Your task to perform on an android device: add a label to a message in the gmail app Image 0: 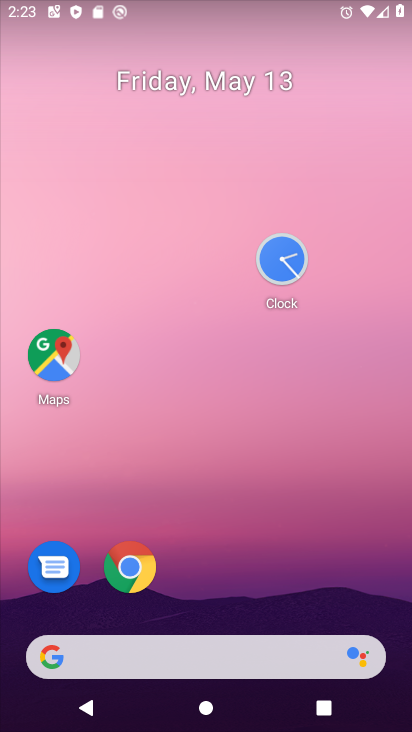
Step 0: drag from (207, 604) to (207, 386)
Your task to perform on an android device: add a label to a message in the gmail app Image 1: 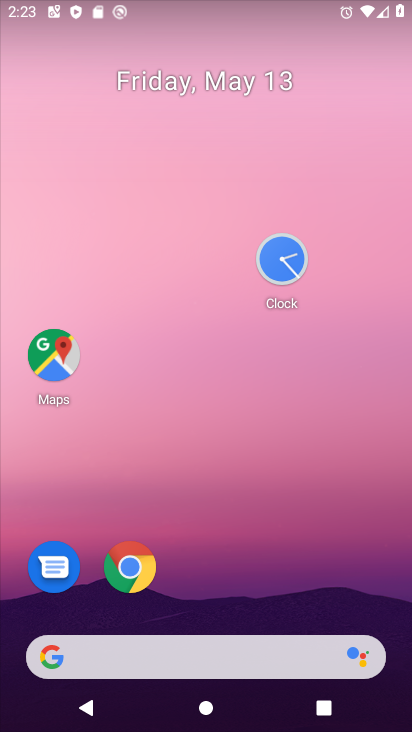
Step 1: drag from (291, 621) to (284, 274)
Your task to perform on an android device: add a label to a message in the gmail app Image 2: 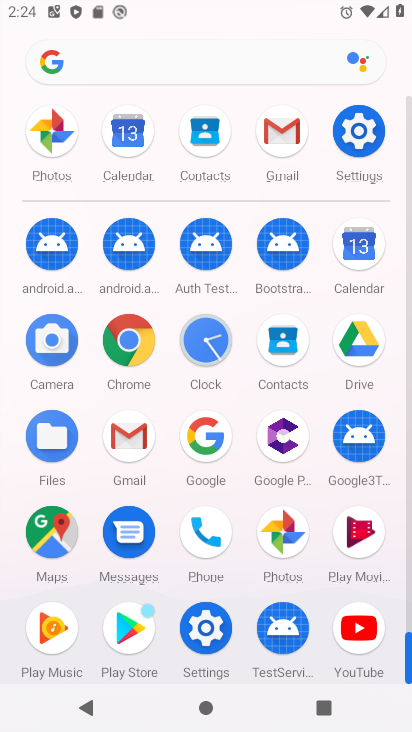
Step 2: click (129, 436)
Your task to perform on an android device: add a label to a message in the gmail app Image 3: 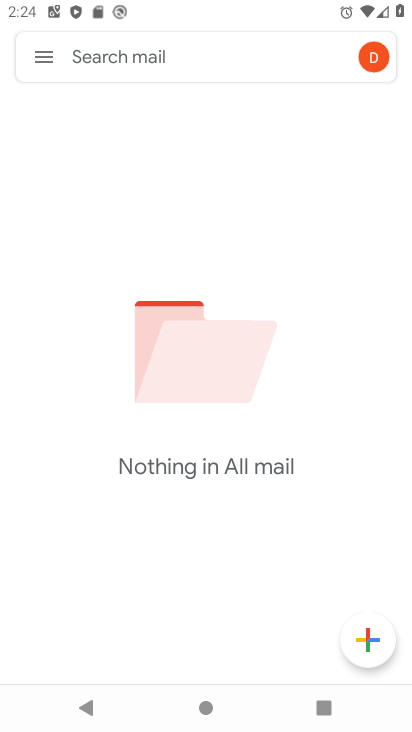
Step 3: click (49, 66)
Your task to perform on an android device: add a label to a message in the gmail app Image 4: 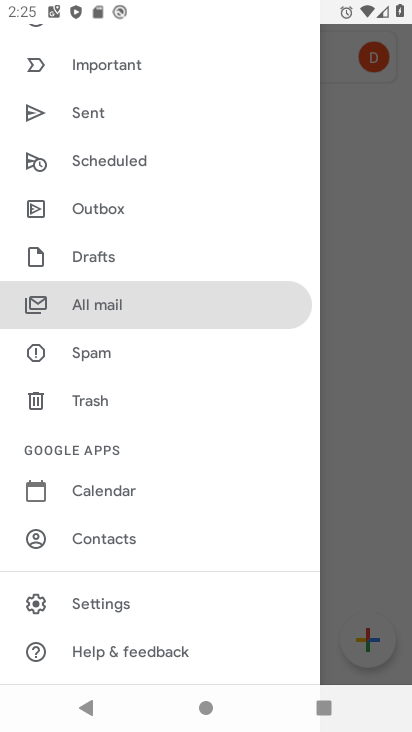
Step 4: click (68, 307)
Your task to perform on an android device: add a label to a message in the gmail app Image 5: 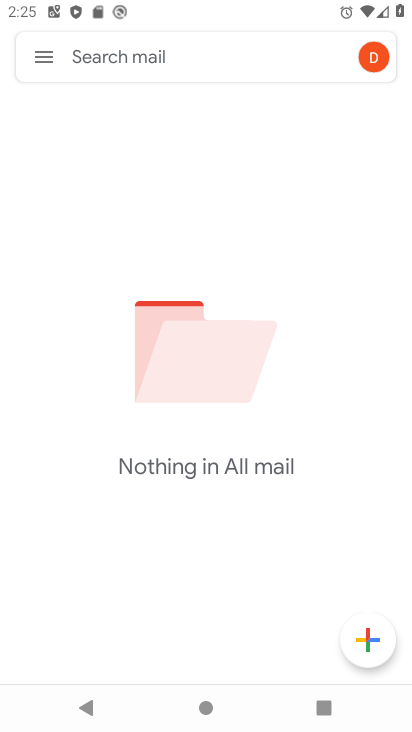
Step 5: task complete